Your task to perform on an android device: toggle pop-ups in chrome Image 0: 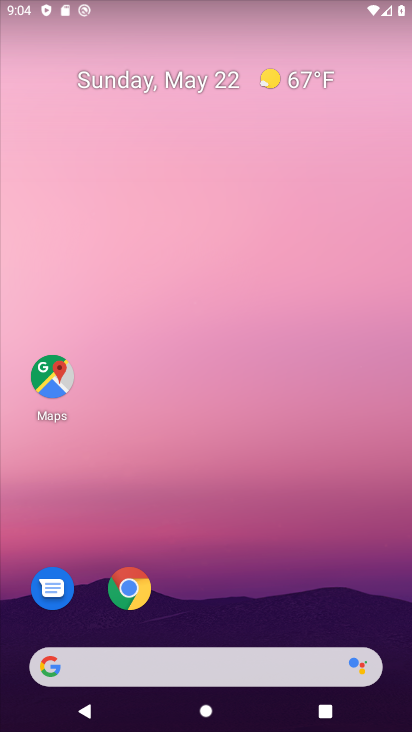
Step 0: click (137, 597)
Your task to perform on an android device: toggle pop-ups in chrome Image 1: 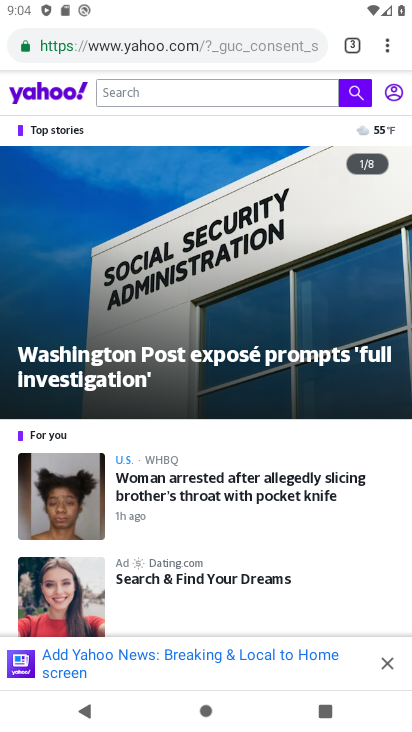
Step 1: click (378, 45)
Your task to perform on an android device: toggle pop-ups in chrome Image 2: 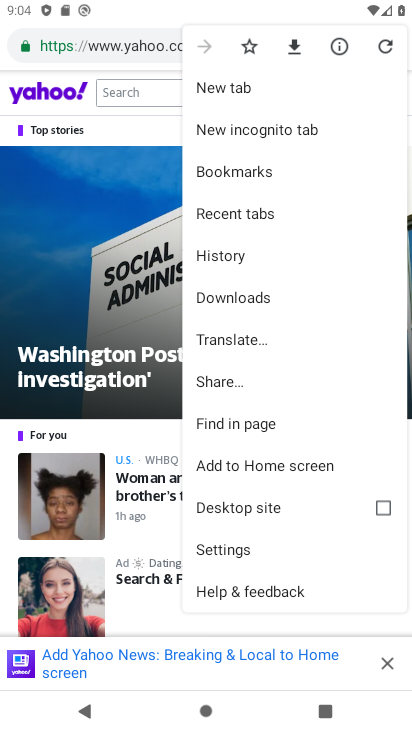
Step 2: click (253, 545)
Your task to perform on an android device: toggle pop-ups in chrome Image 3: 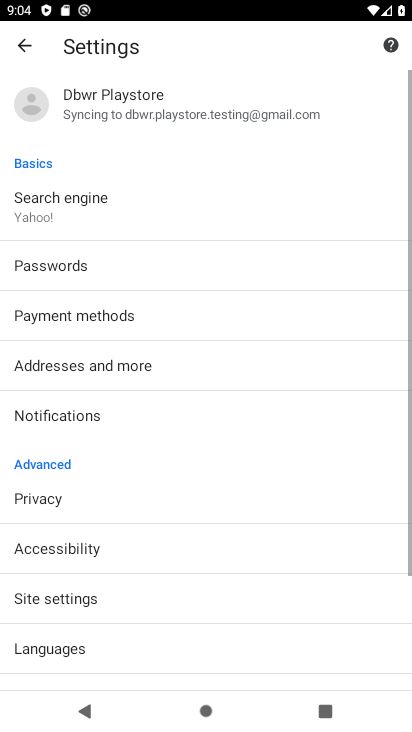
Step 3: drag from (230, 554) to (246, 256)
Your task to perform on an android device: toggle pop-ups in chrome Image 4: 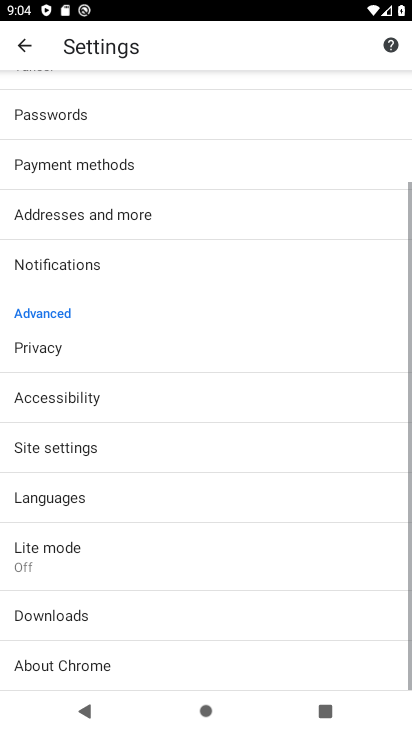
Step 4: click (131, 455)
Your task to perform on an android device: toggle pop-ups in chrome Image 5: 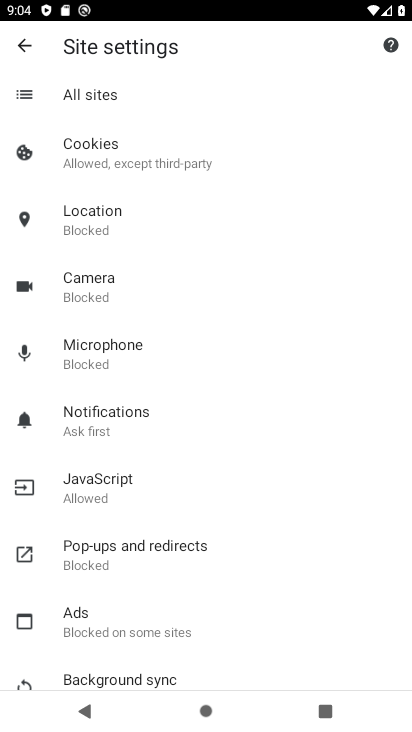
Step 5: click (213, 561)
Your task to perform on an android device: toggle pop-ups in chrome Image 6: 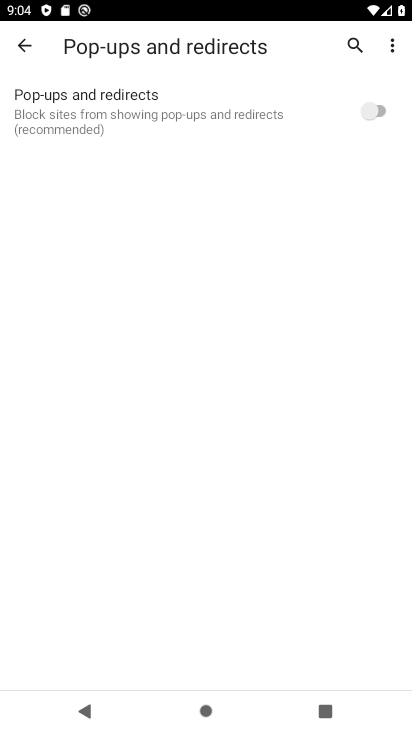
Step 6: click (383, 108)
Your task to perform on an android device: toggle pop-ups in chrome Image 7: 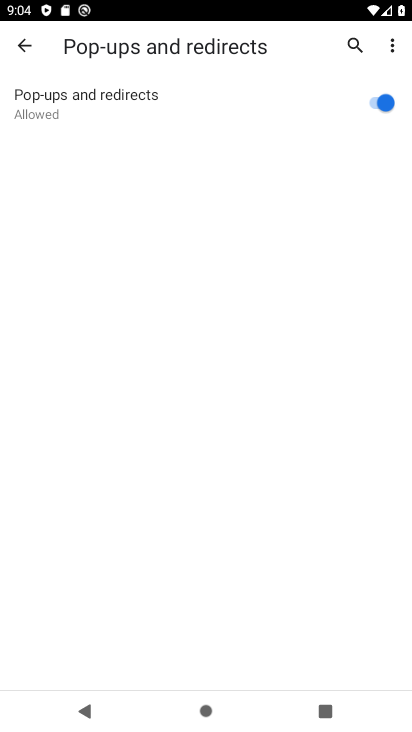
Step 7: task complete